Your task to perform on an android device: open chrome and create a bookmark for the current page Image 0: 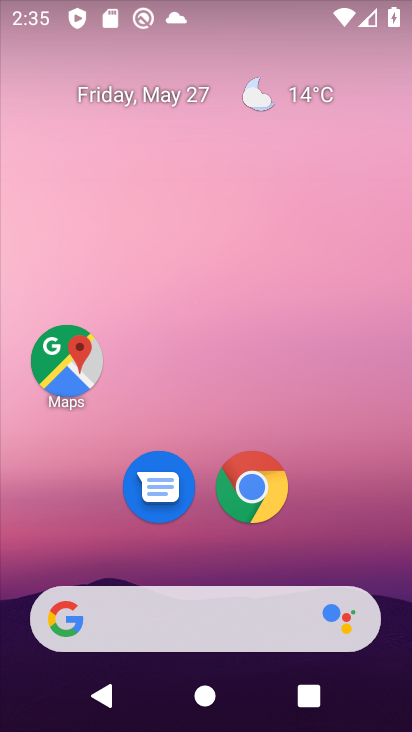
Step 0: press home button
Your task to perform on an android device: open chrome and create a bookmark for the current page Image 1: 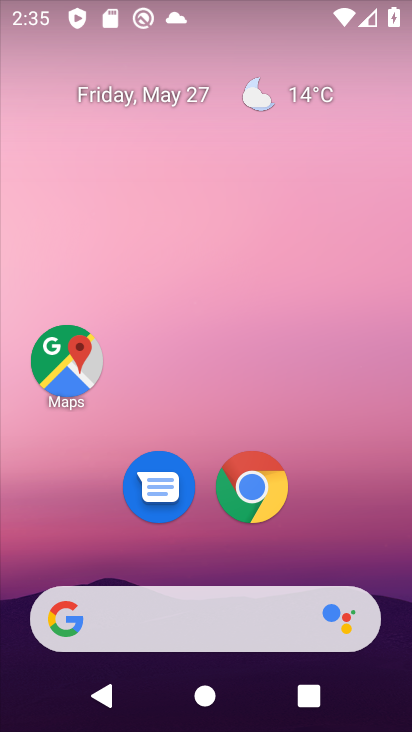
Step 1: drag from (275, 528) to (343, 148)
Your task to perform on an android device: open chrome and create a bookmark for the current page Image 2: 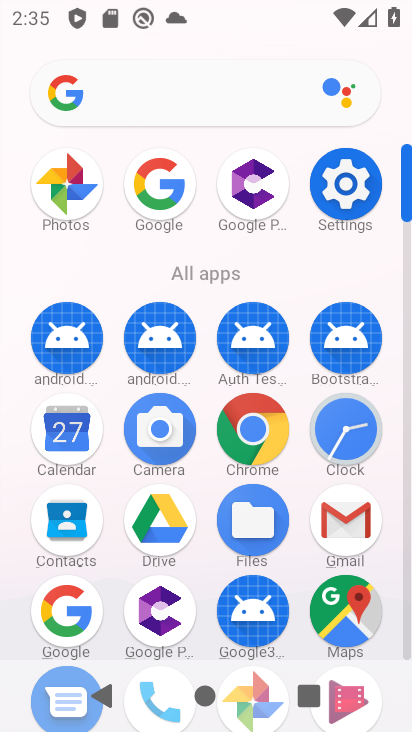
Step 2: click (252, 406)
Your task to perform on an android device: open chrome and create a bookmark for the current page Image 3: 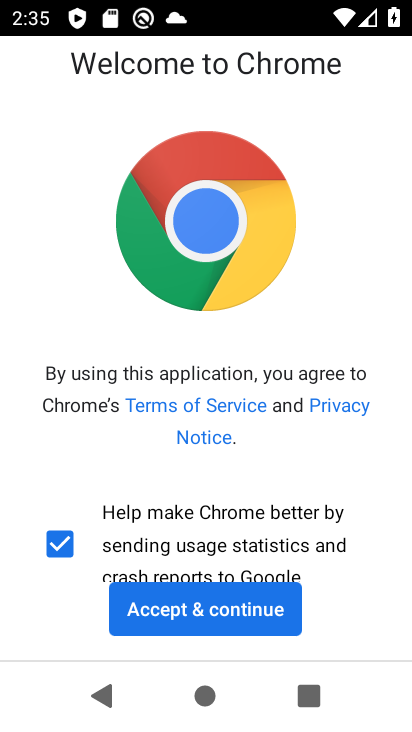
Step 3: click (292, 603)
Your task to perform on an android device: open chrome and create a bookmark for the current page Image 4: 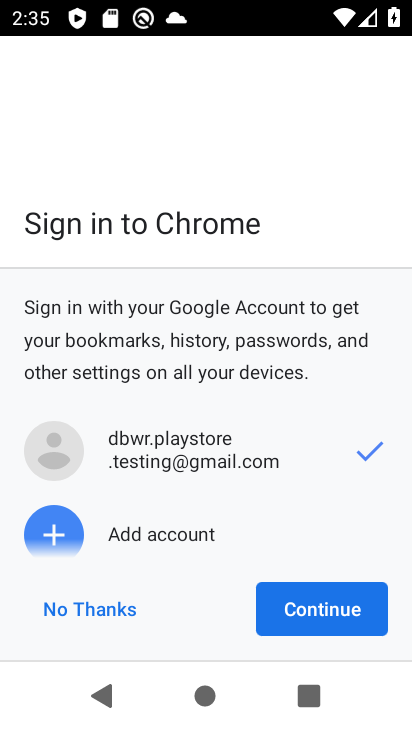
Step 4: click (295, 604)
Your task to perform on an android device: open chrome and create a bookmark for the current page Image 5: 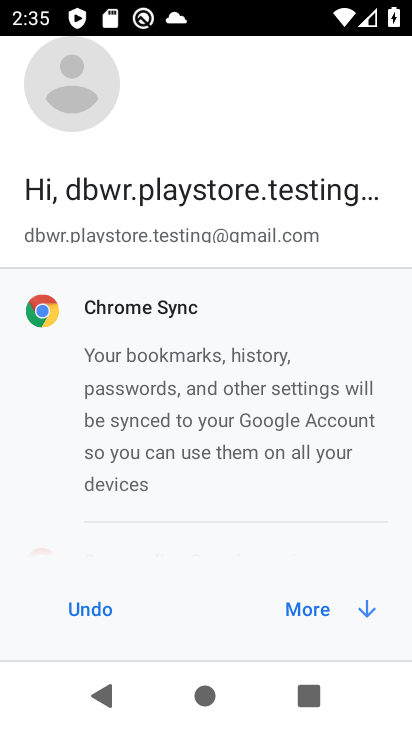
Step 5: click (295, 604)
Your task to perform on an android device: open chrome and create a bookmark for the current page Image 6: 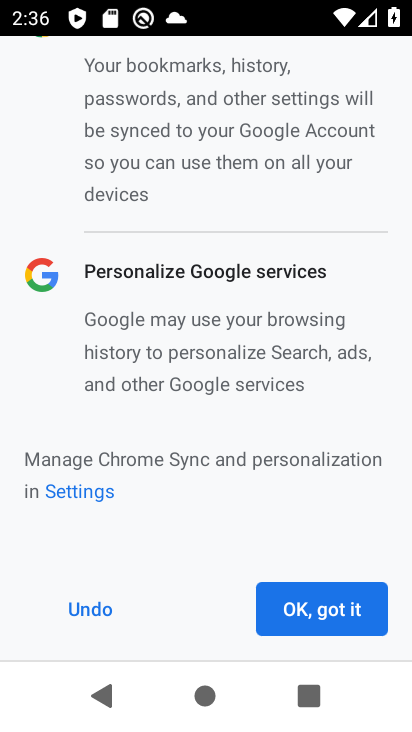
Step 6: click (295, 604)
Your task to perform on an android device: open chrome and create a bookmark for the current page Image 7: 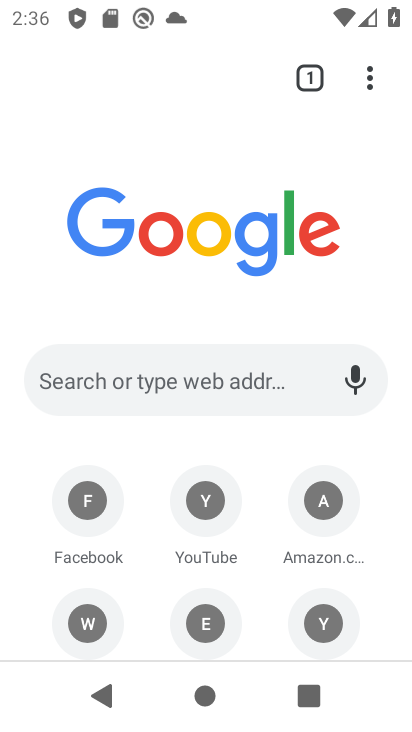
Step 7: click (173, 372)
Your task to perform on an android device: open chrome and create a bookmark for the current page Image 8: 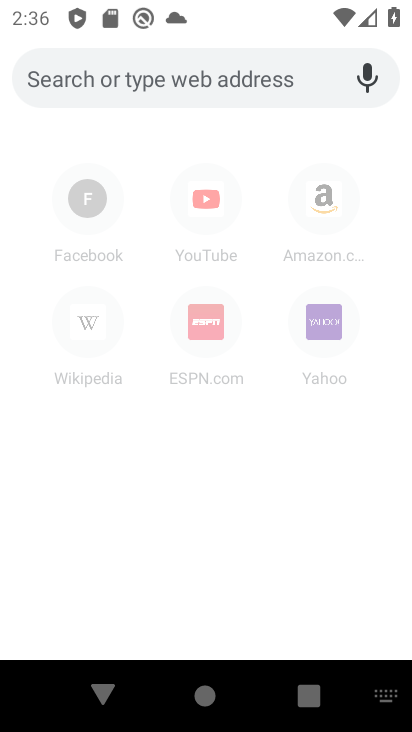
Step 8: task complete